Your task to perform on an android device: turn off sleep mode Image 0: 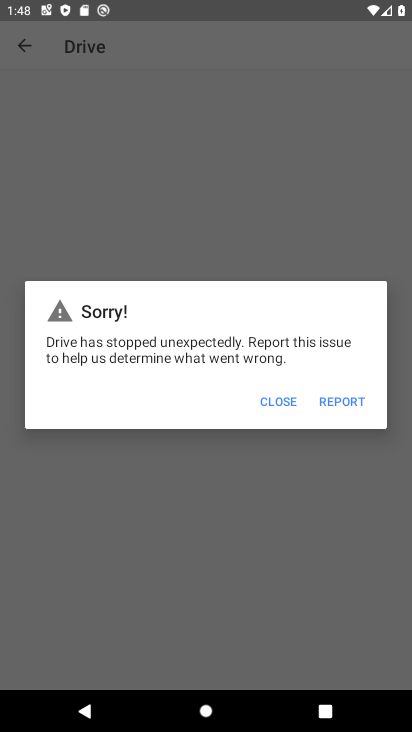
Step 0: press home button
Your task to perform on an android device: turn off sleep mode Image 1: 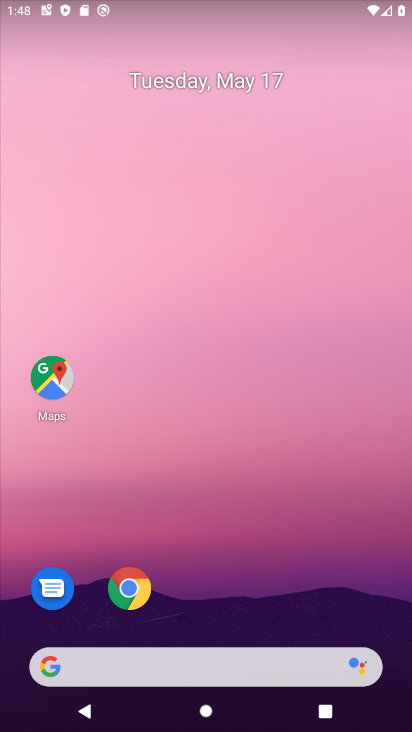
Step 1: drag from (187, 608) to (169, 144)
Your task to perform on an android device: turn off sleep mode Image 2: 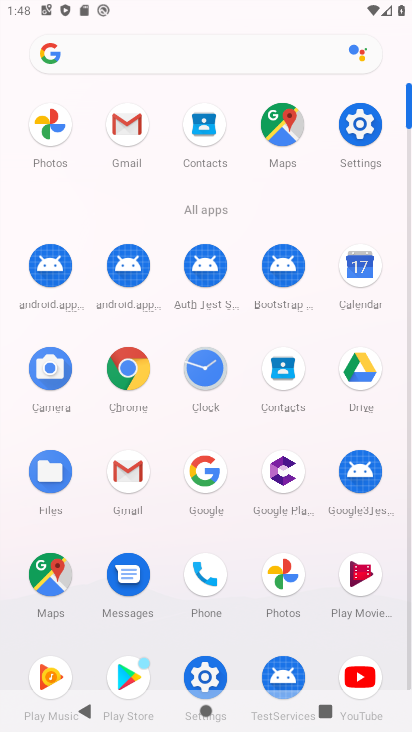
Step 2: click (367, 121)
Your task to perform on an android device: turn off sleep mode Image 3: 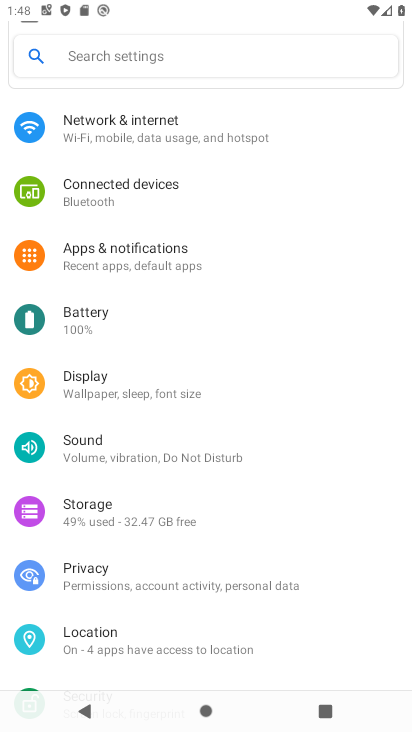
Step 3: click (176, 398)
Your task to perform on an android device: turn off sleep mode Image 4: 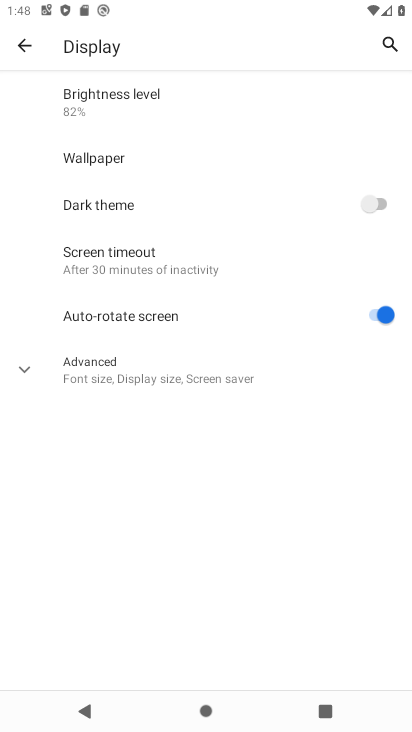
Step 4: click (176, 363)
Your task to perform on an android device: turn off sleep mode Image 5: 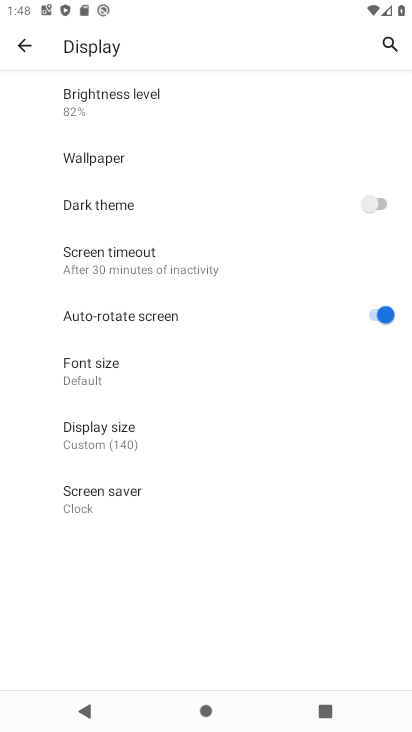
Step 5: task complete